Your task to perform on an android device: Is it going to rain this weekend? Image 0: 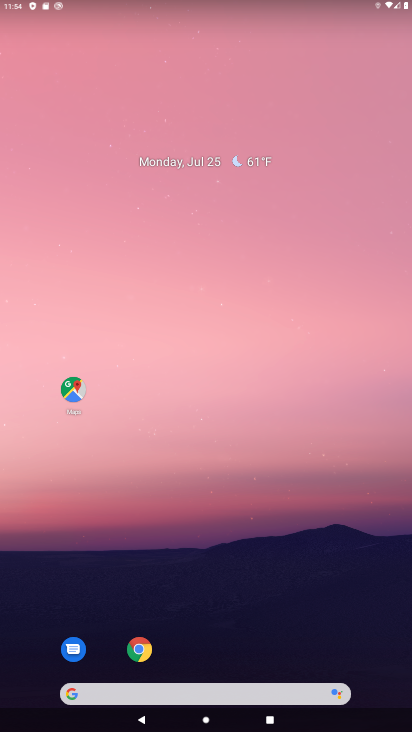
Step 0: drag from (374, 683) to (305, 129)
Your task to perform on an android device: Is it going to rain this weekend? Image 1: 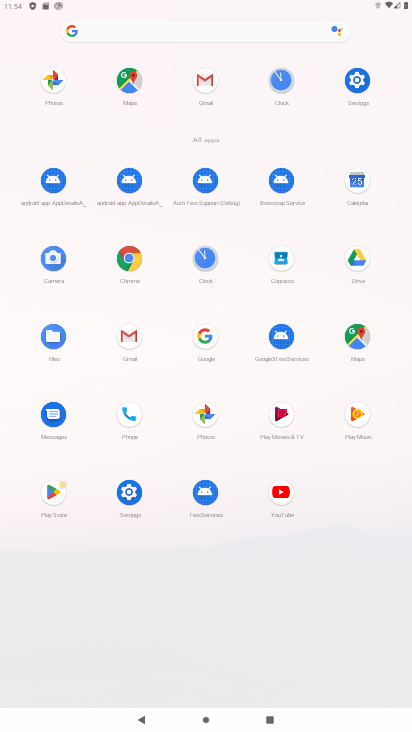
Step 1: click (202, 340)
Your task to perform on an android device: Is it going to rain this weekend? Image 2: 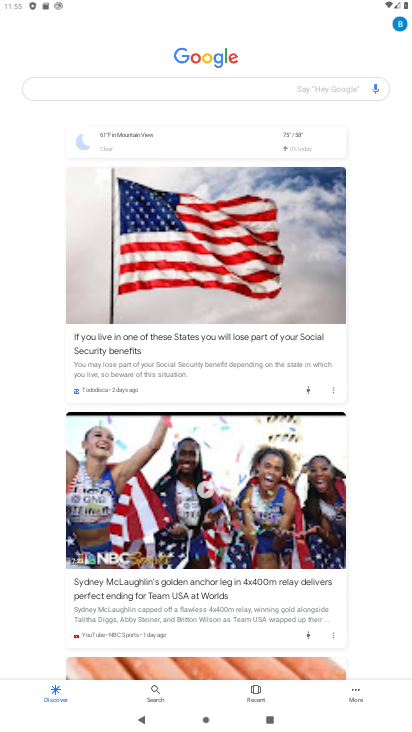
Step 2: click (311, 141)
Your task to perform on an android device: Is it going to rain this weekend? Image 3: 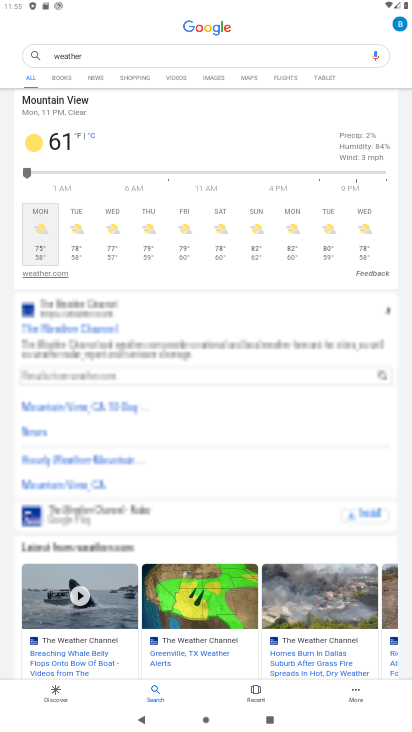
Step 3: task complete